Your task to perform on an android device: uninstall "NewsBreak: Local News & Alerts" Image 0: 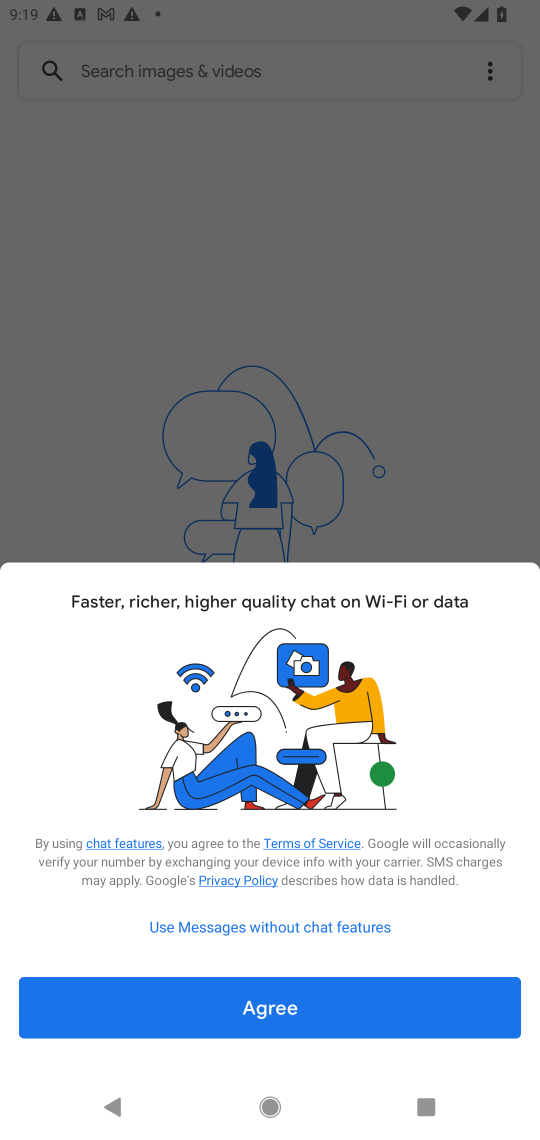
Step 0: press home button
Your task to perform on an android device: uninstall "NewsBreak: Local News & Alerts" Image 1: 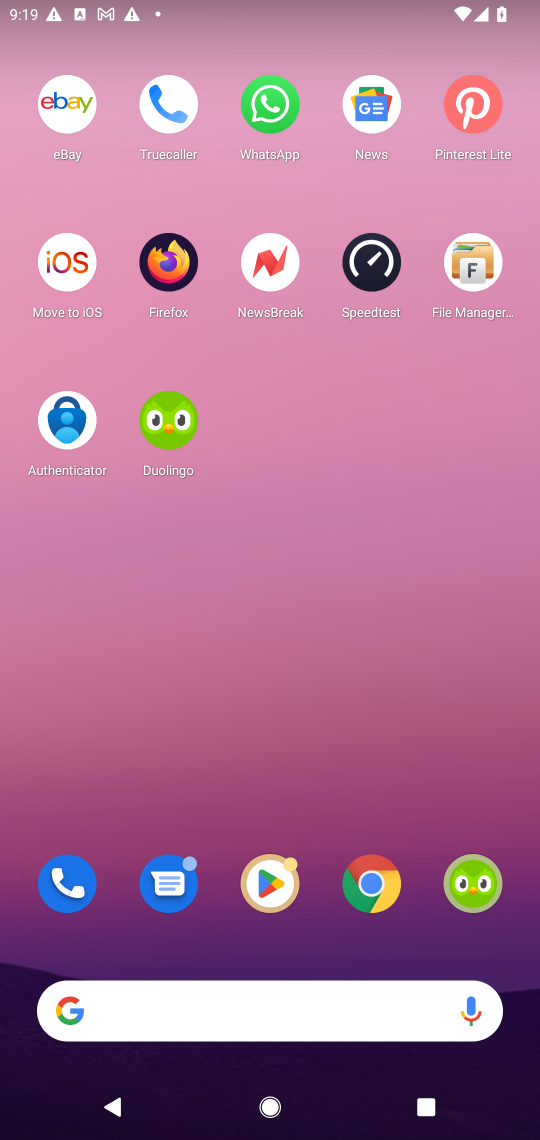
Step 1: click (263, 875)
Your task to perform on an android device: uninstall "NewsBreak: Local News & Alerts" Image 2: 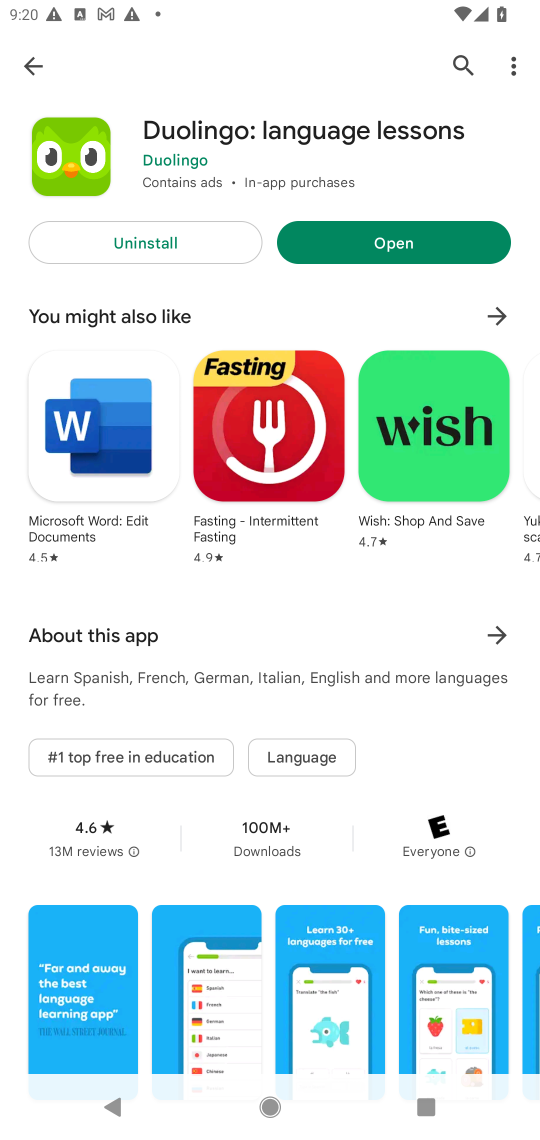
Step 2: click (449, 57)
Your task to perform on an android device: uninstall "NewsBreak: Local News & Alerts" Image 3: 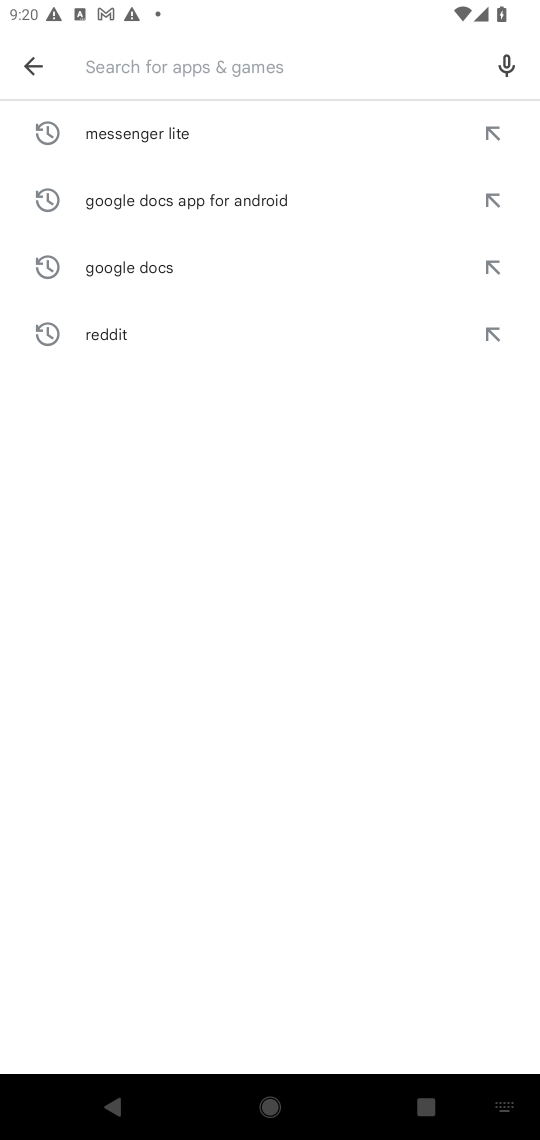
Step 3: type "NewsBreak: Local News & Alerts"
Your task to perform on an android device: uninstall "NewsBreak: Local News & Alerts" Image 4: 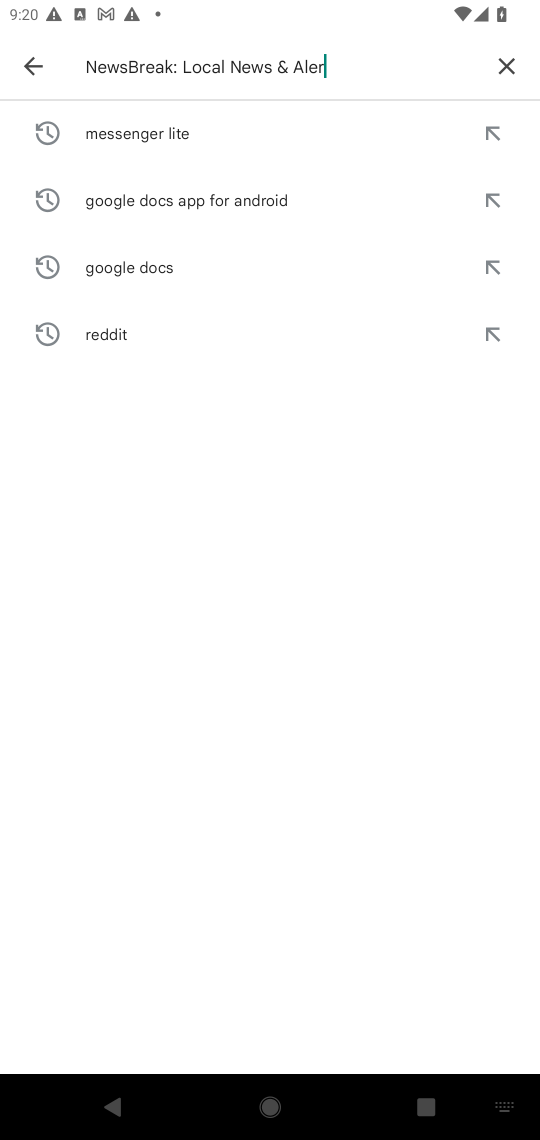
Step 4: type ""
Your task to perform on an android device: uninstall "NewsBreak: Local News & Alerts" Image 5: 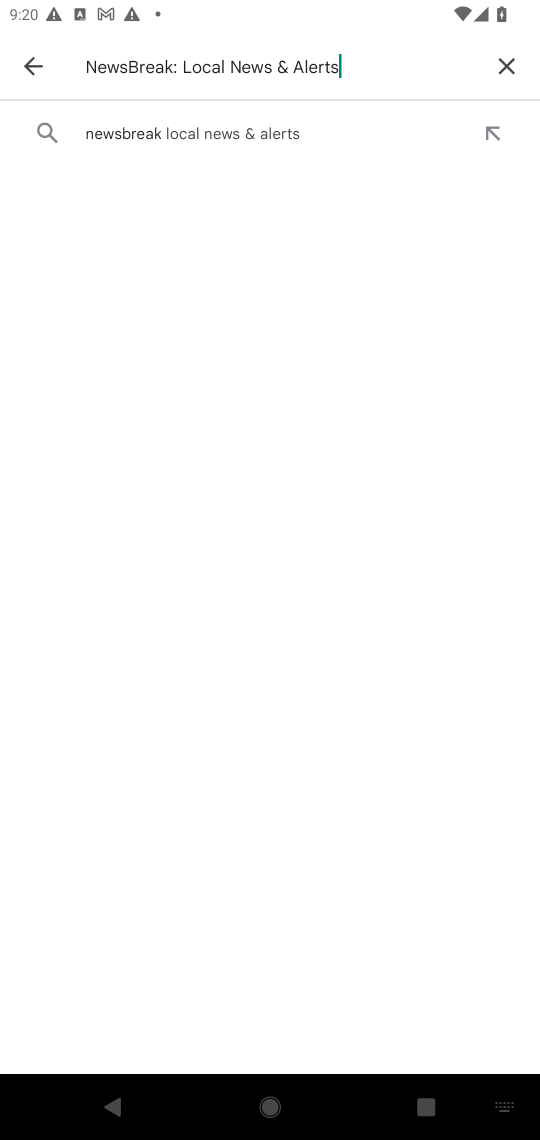
Step 5: click (267, 131)
Your task to perform on an android device: uninstall "NewsBreak: Local News & Alerts" Image 6: 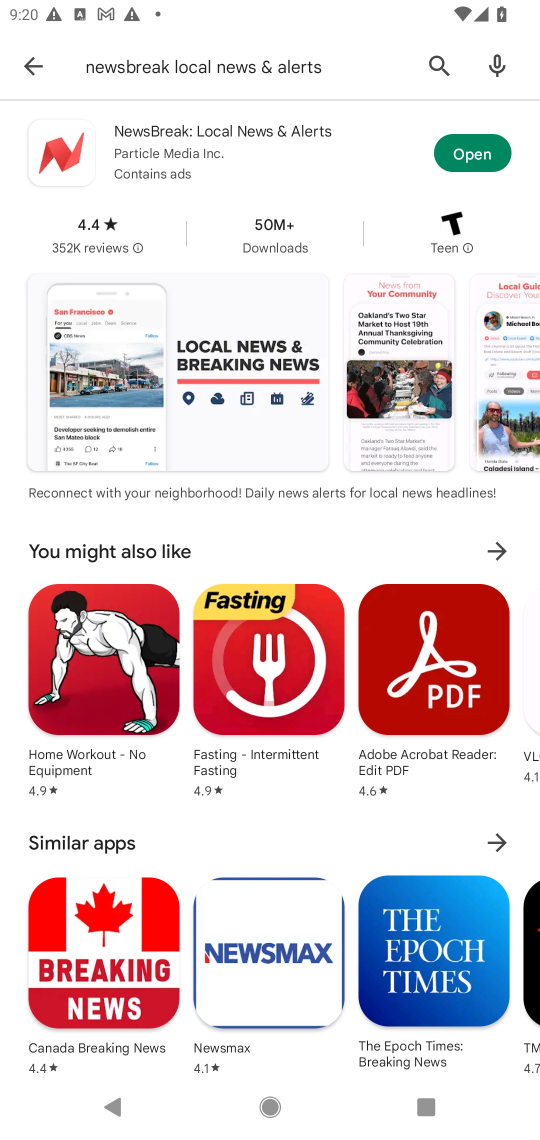
Step 6: click (259, 151)
Your task to perform on an android device: uninstall "NewsBreak: Local News & Alerts" Image 7: 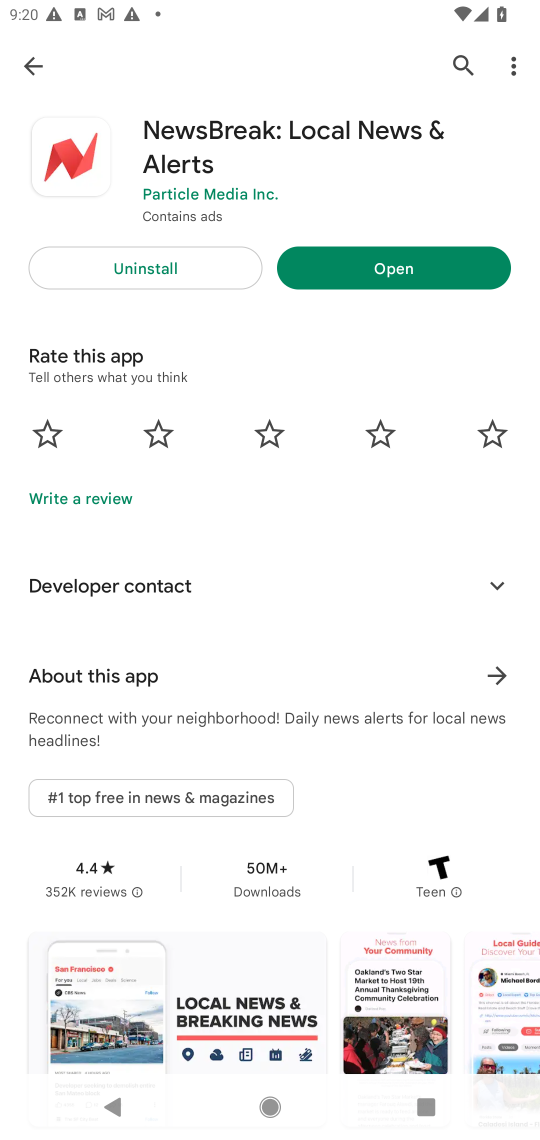
Step 7: click (172, 252)
Your task to perform on an android device: uninstall "NewsBreak: Local News & Alerts" Image 8: 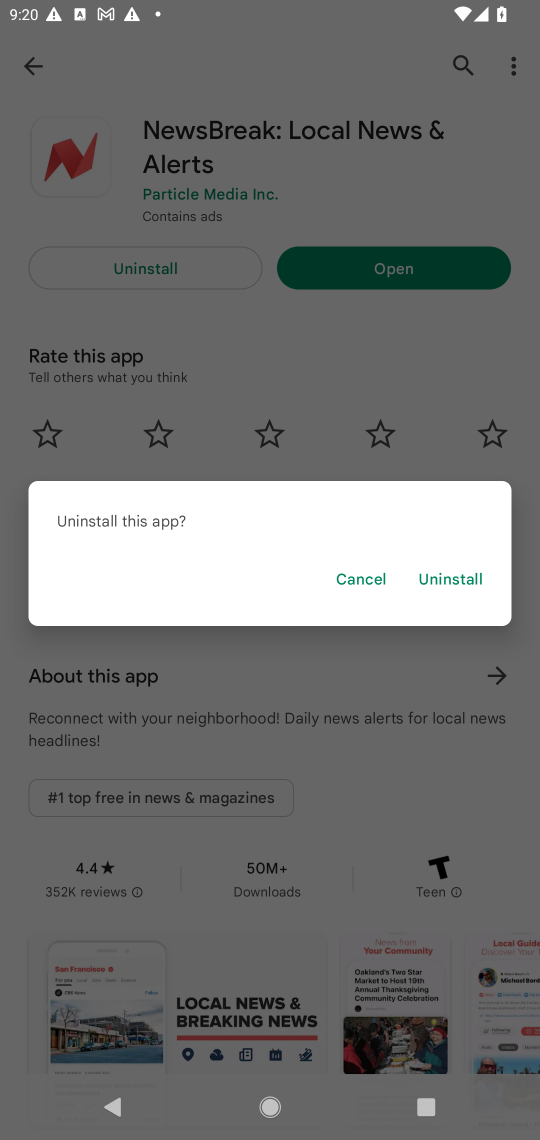
Step 8: click (438, 583)
Your task to perform on an android device: uninstall "NewsBreak: Local News & Alerts" Image 9: 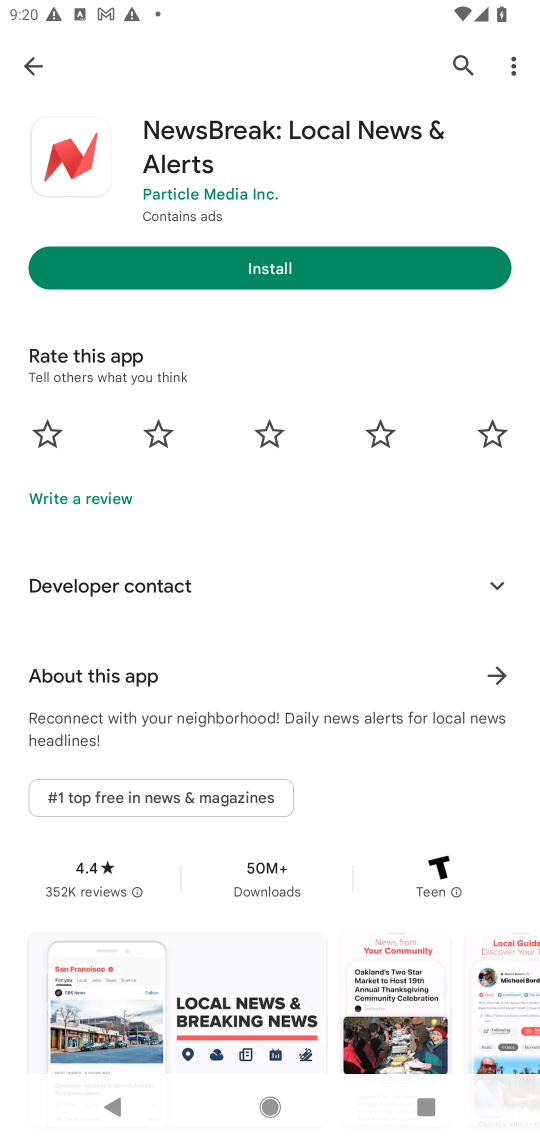
Step 9: task complete